Your task to perform on an android device: Open maps Image 0: 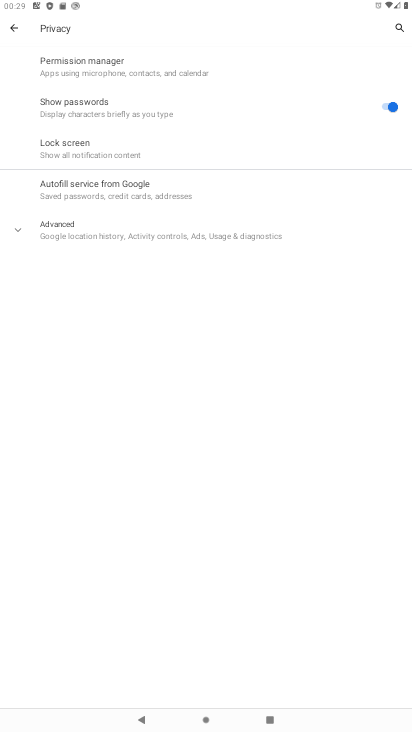
Step 0: click (68, 394)
Your task to perform on an android device: Open maps Image 1: 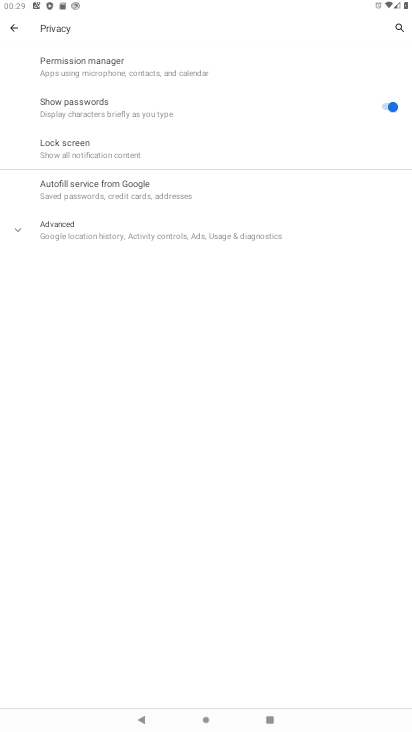
Step 1: press home button
Your task to perform on an android device: Open maps Image 2: 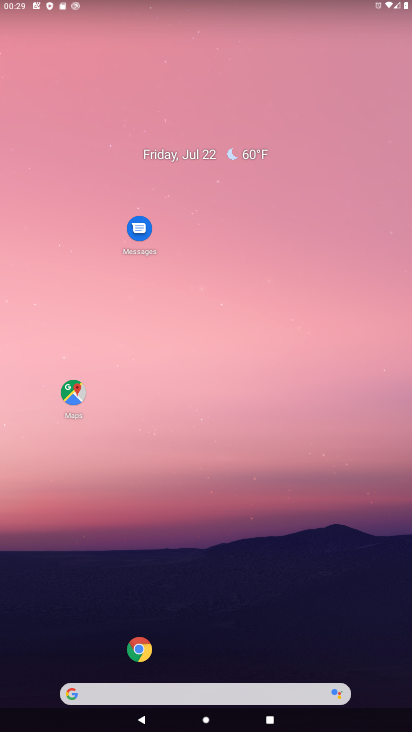
Step 2: click (77, 400)
Your task to perform on an android device: Open maps Image 3: 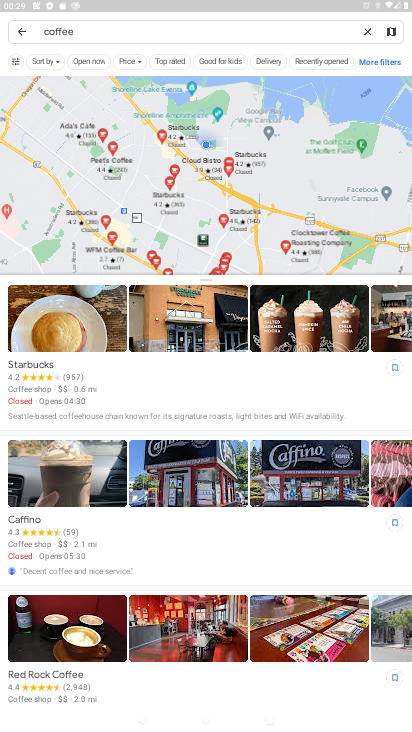
Step 3: click (20, 27)
Your task to perform on an android device: Open maps Image 4: 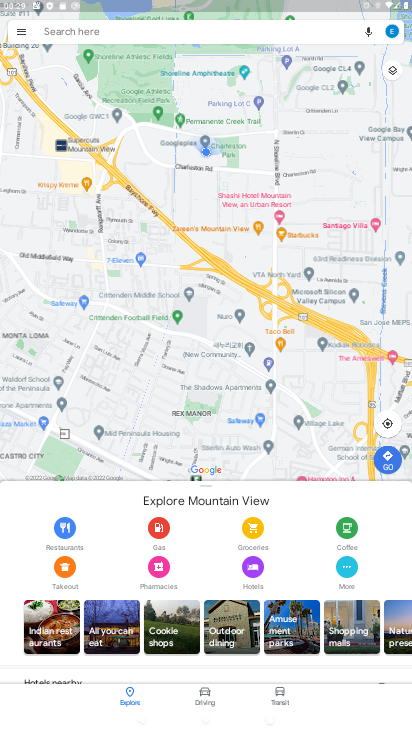
Step 4: task complete